Your task to perform on an android device: find snoozed emails in the gmail app Image 0: 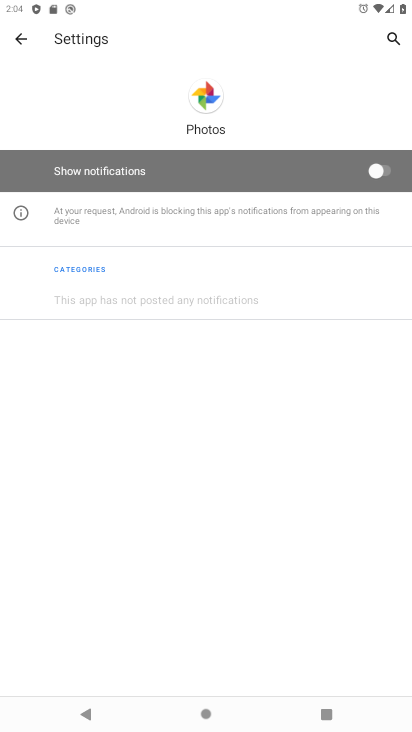
Step 0: press home button
Your task to perform on an android device: find snoozed emails in the gmail app Image 1: 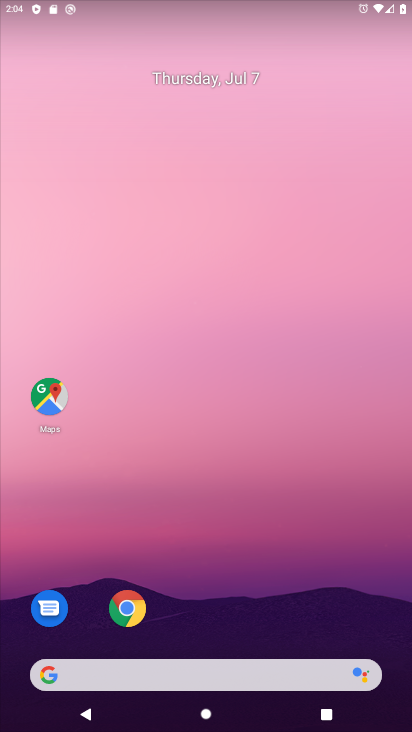
Step 1: drag from (253, 712) to (203, 55)
Your task to perform on an android device: find snoozed emails in the gmail app Image 2: 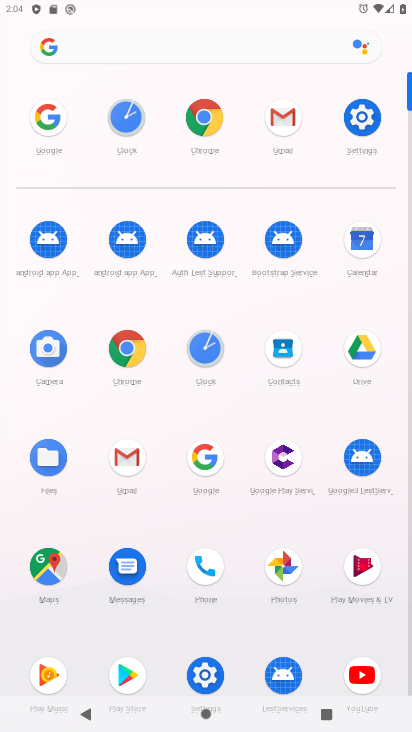
Step 2: click (131, 455)
Your task to perform on an android device: find snoozed emails in the gmail app Image 3: 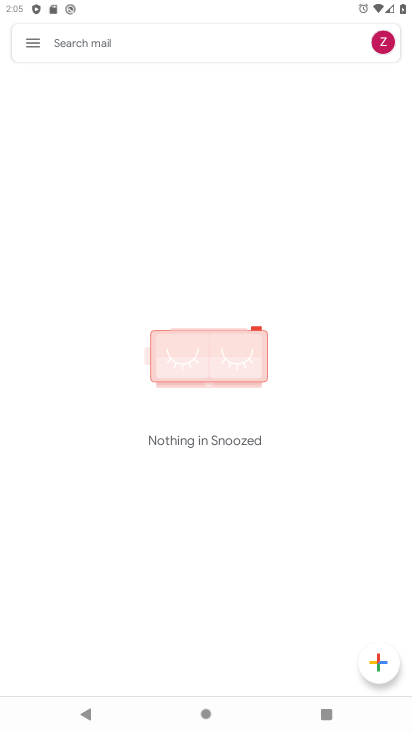
Step 3: task complete